Your task to perform on an android device: change the clock display to analog Image 0: 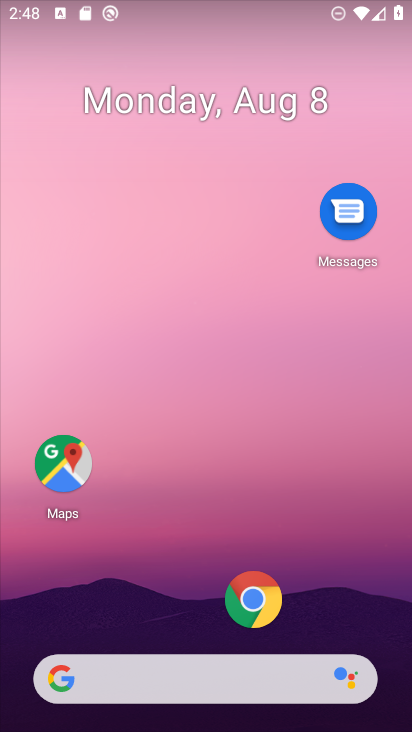
Step 0: drag from (183, 581) to (165, 35)
Your task to perform on an android device: change the clock display to analog Image 1: 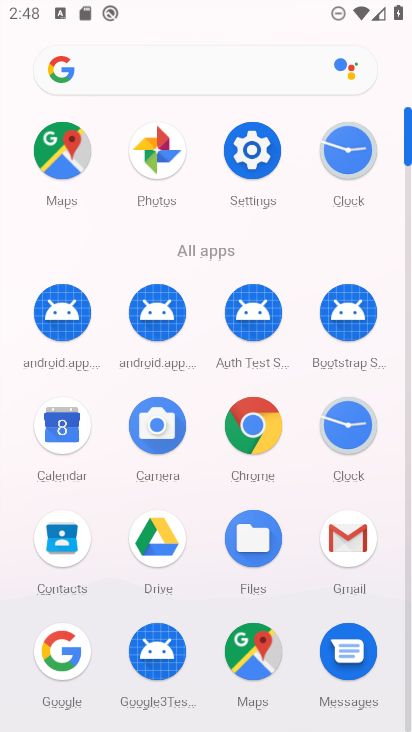
Step 1: click (355, 151)
Your task to perform on an android device: change the clock display to analog Image 2: 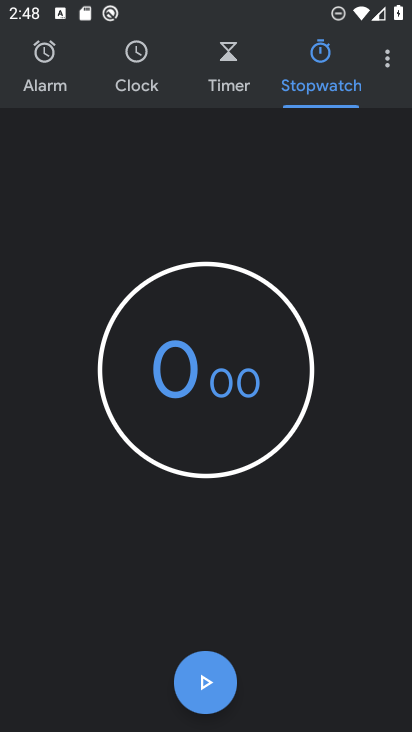
Step 2: click (391, 58)
Your task to perform on an android device: change the clock display to analog Image 3: 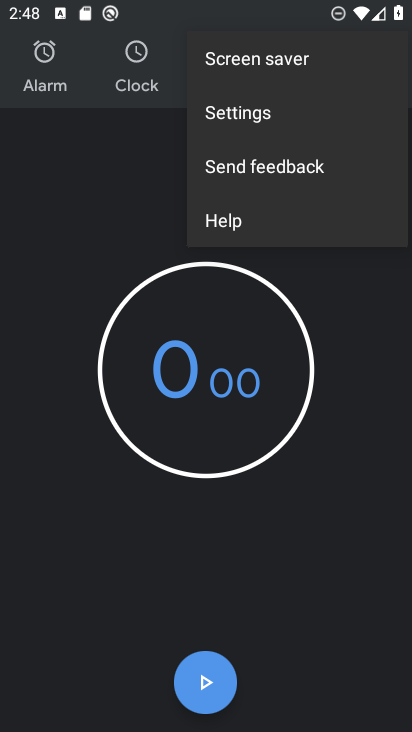
Step 3: click (239, 113)
Your task to perform on an android device: change the clock display to analog Image 4: 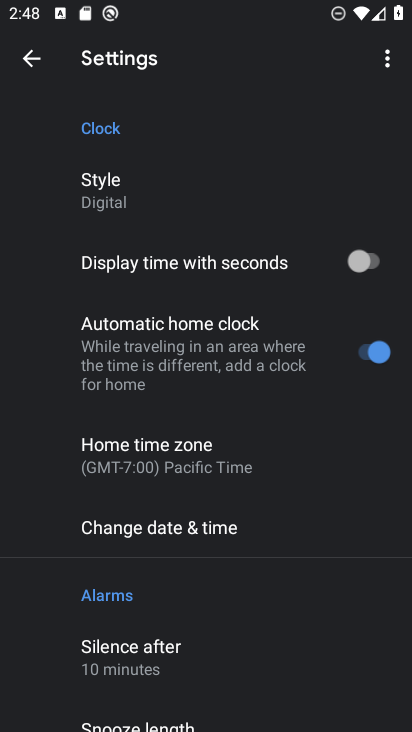
Step 4: click (163, 183)
Your task to perform on an android device: change the clock display to analog Image 5: 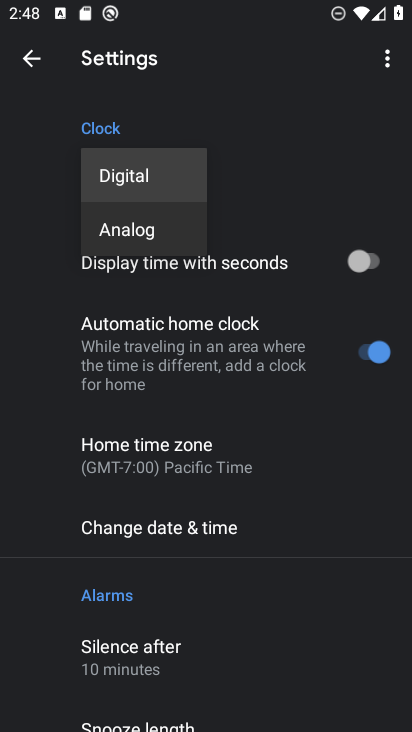
Step 5: click (168, 235)
Your task to perform on an android device: change the clock display to analog Image 6: 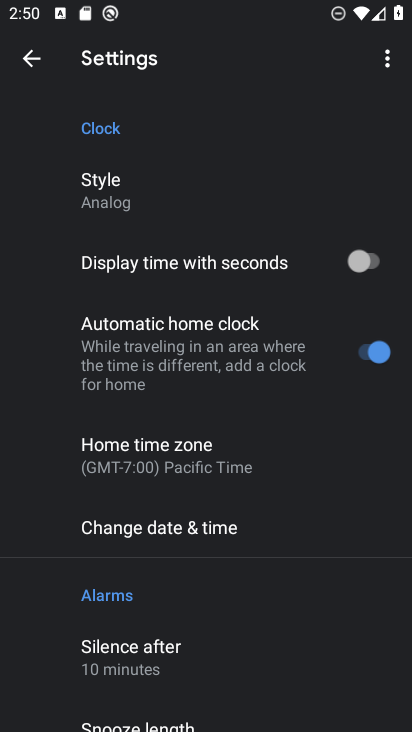
Step 6: task complete